Your task to perform on an android device: Turn off the flashlight Image 0: 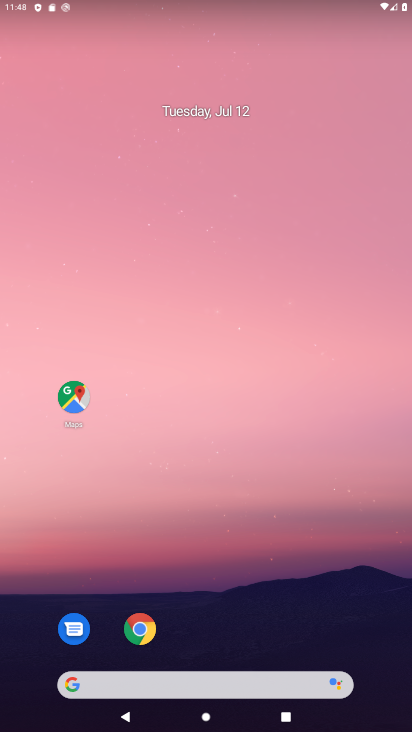
Step 0: drag from (182, 0) to (212, 32)
Your task to perform on an android device: Turn off the flashlight Image 1: 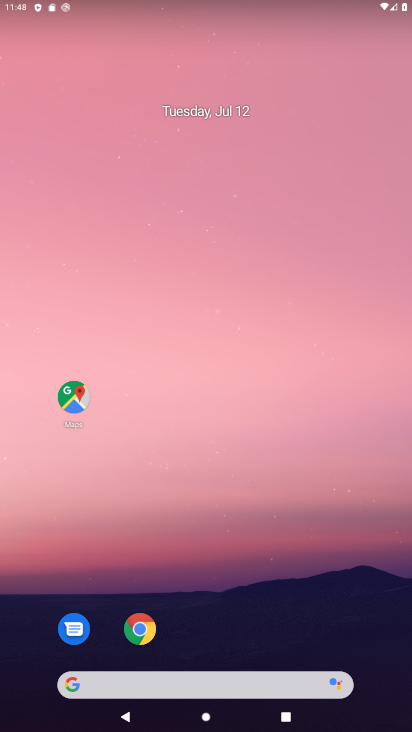
Step 1: task complete